Your task to perform on an android device: Do I have any events tomorrow? Image 0: 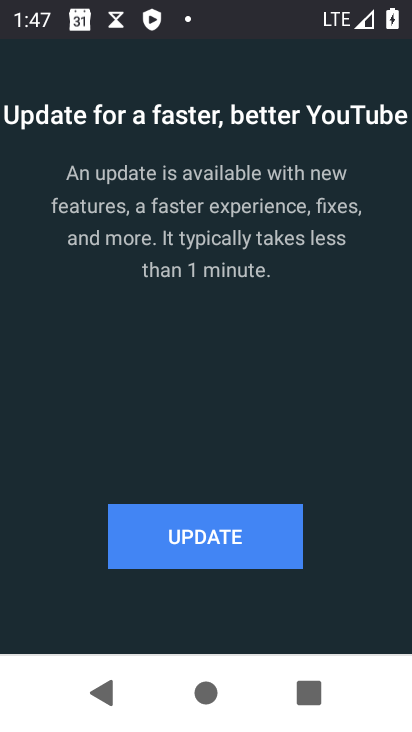
Step 0: press home button
Your task to perform on an android device: Do I have any events tomorrow? Image 1: 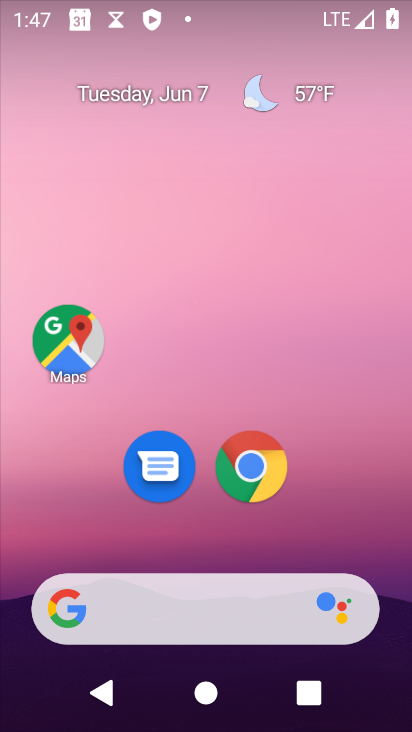
Step 1: drag from (198, 572) to (290, 27)
Your task to perform on an android device: Do I have any events tomorrow? Image 2: 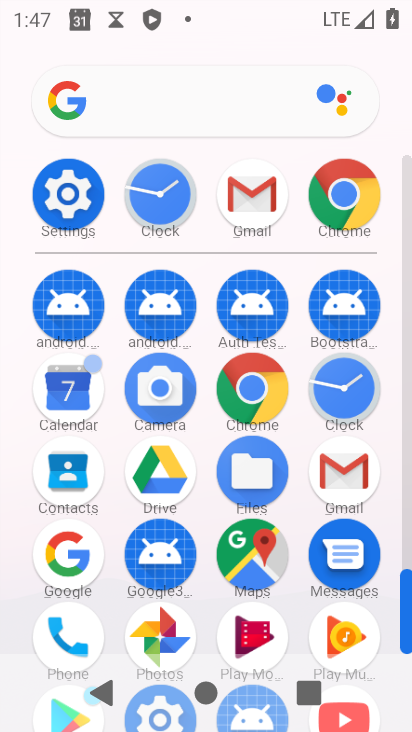
Step 2: click (73, 378)
Your task to perform on an android device: Do I have any events tomorrow? Image 3: 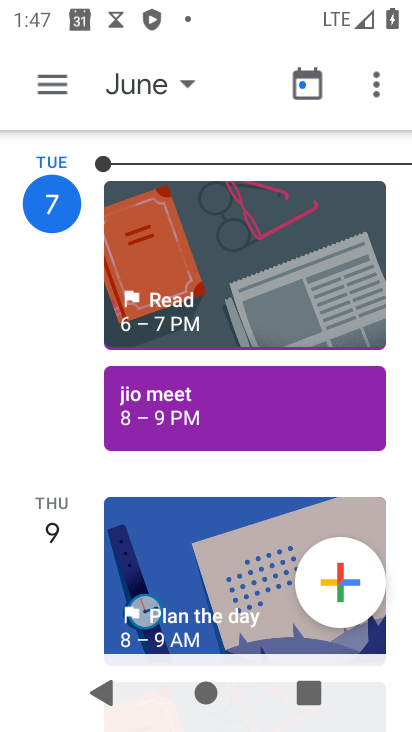
Step 3: task complete